Your task to perform on an android device: turn off notifications settings in the gmail app Image 0: 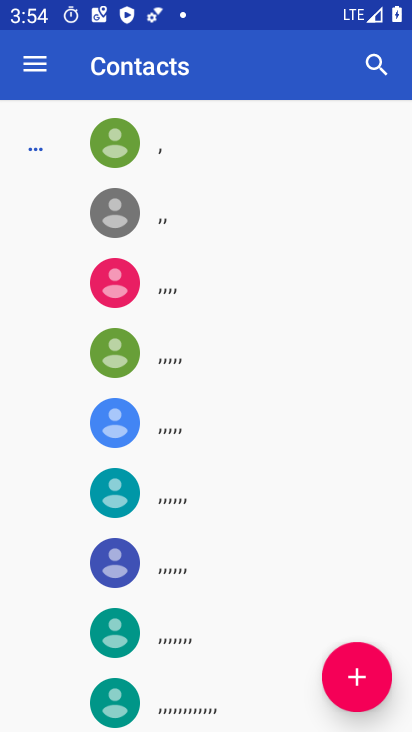
Step 0: press home button
Your task to perform on an android device: turn off notifications settings in the gmail app Image 1: 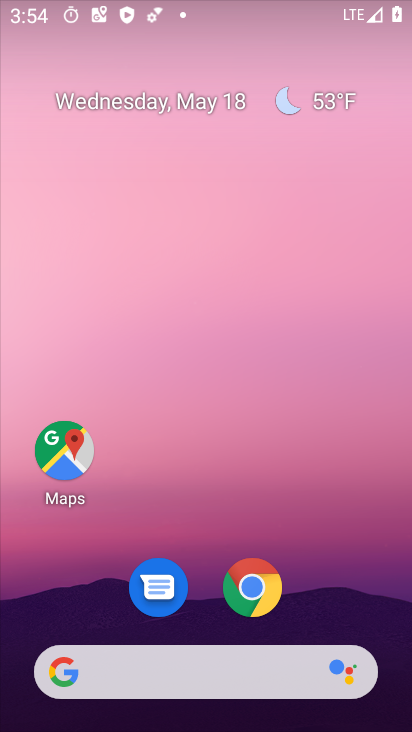
Step 1: drag from (119, 645) to (231, 283)
Your task to perform on an android device: turn off notifications settings in the gmail app Image 2: 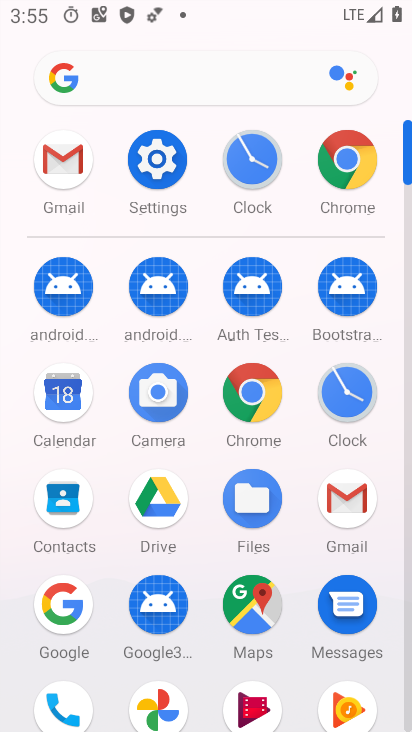
Step 2: click (344, 525)
Your task to perform on an android device: turn off notifications settings in the gmail app Image 3: 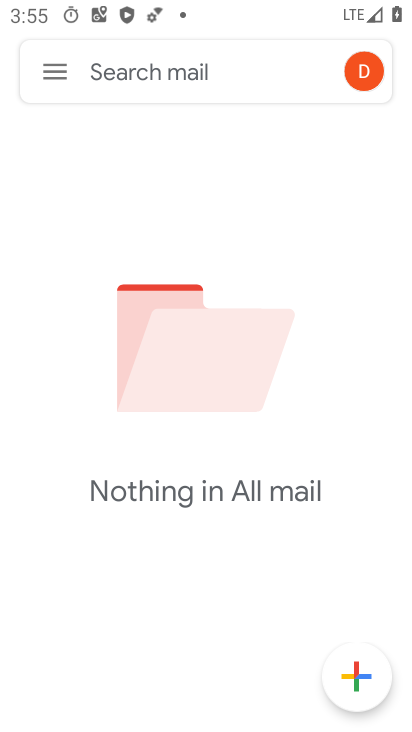
Step 3: click (55, 70)
Your task to perform on an android device: turn off notifications settings in the gmail app Image 4: 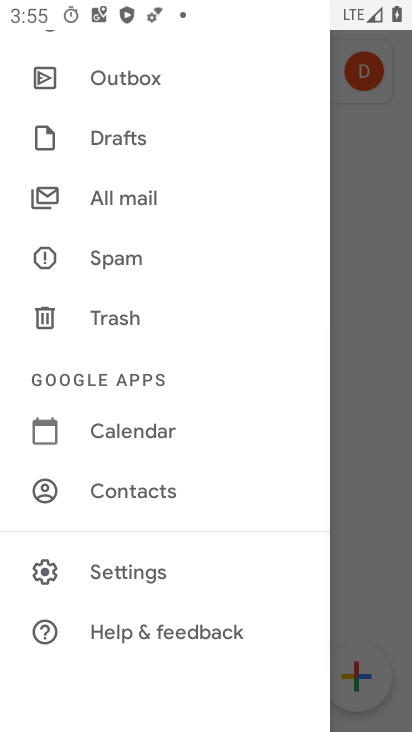
Step 4: click (131, 559)
Your task to perform on an android device: turn off notifications settings in the gmail app Image 5: 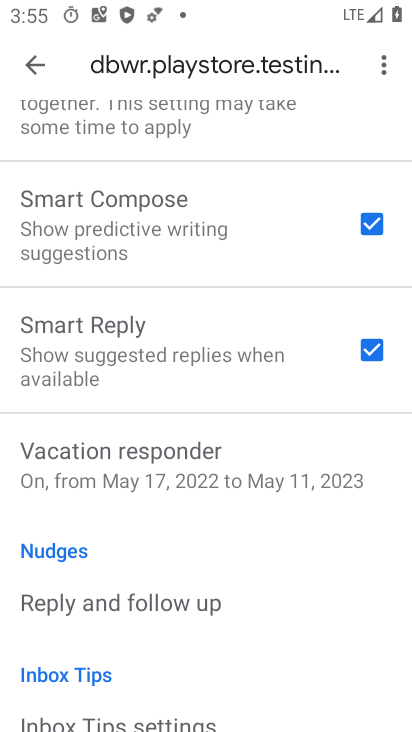
Step 5: click (32, 58)
Your task to perform on an android device: turn off notifications settings in the gmail app Image 6: 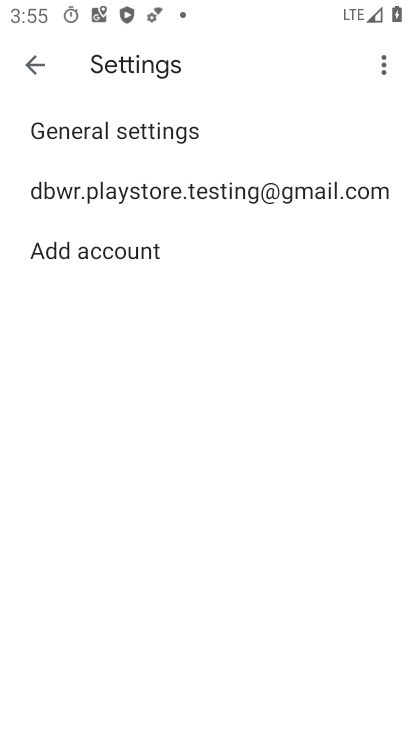
Step 6: click (138, 135)
Your task to perform on an android device: turn off notifications settings in the gmail app Image 7: 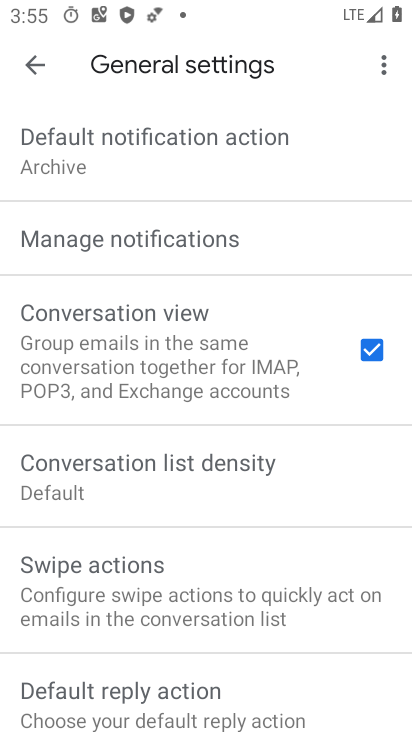
Step 7: click (179, 241)
Your task to perform on an android device: turn off notifications settings in the gmail app Image 8: 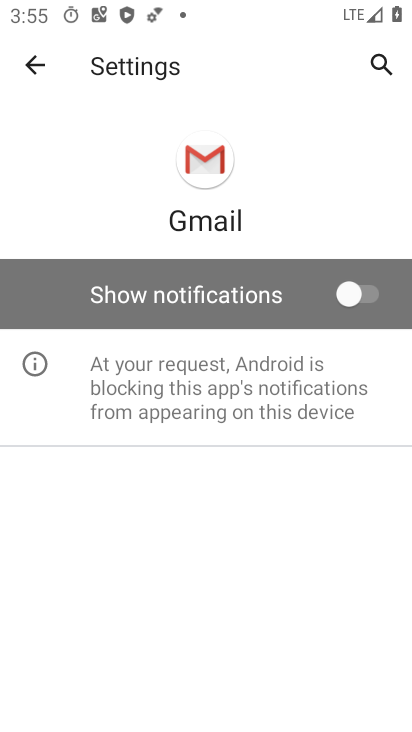
Step 8: task complete